Your task to perform on an android device: turn on showing notifications on the lock screen Image 0: 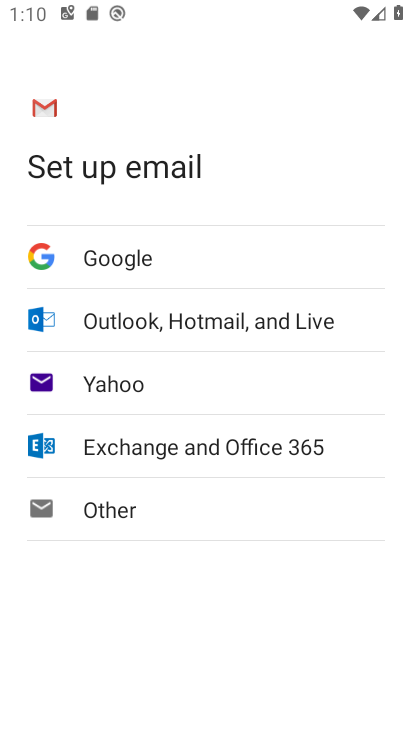
Step 0: press back button
Your task to perform on an android device: turn on showing notifications on the lock screen Image 1: 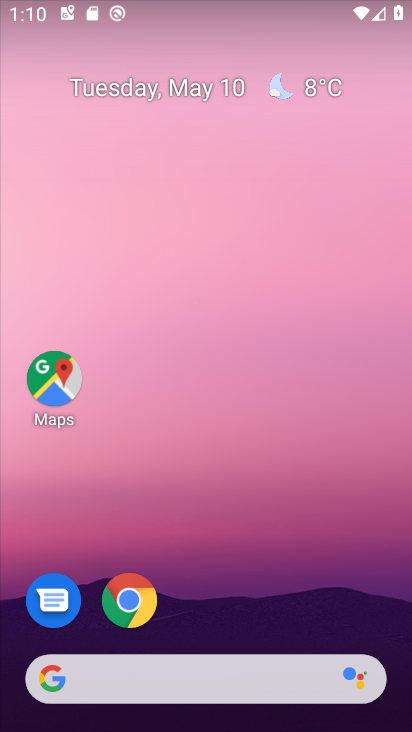
Step 1: drag from (191, 630) to (305, 116)
Your task to perform on an android device: turn on showing notifications on the lock screen Image 2: 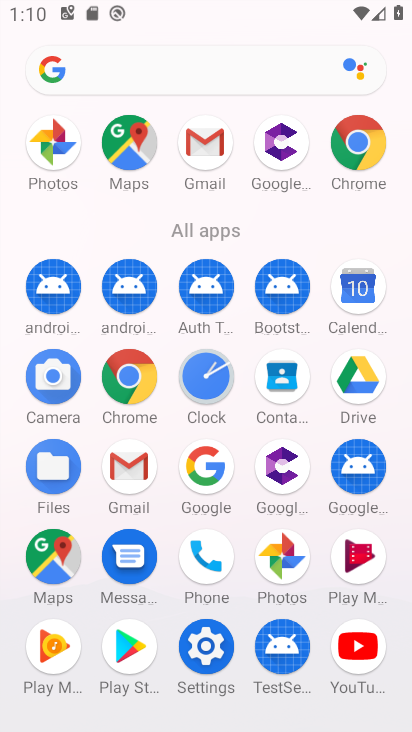
Step 2: drag from (183, 669) to (246, 414)
Your task to perform on an android device: turn on showing notifications on the lock screen Image 3: 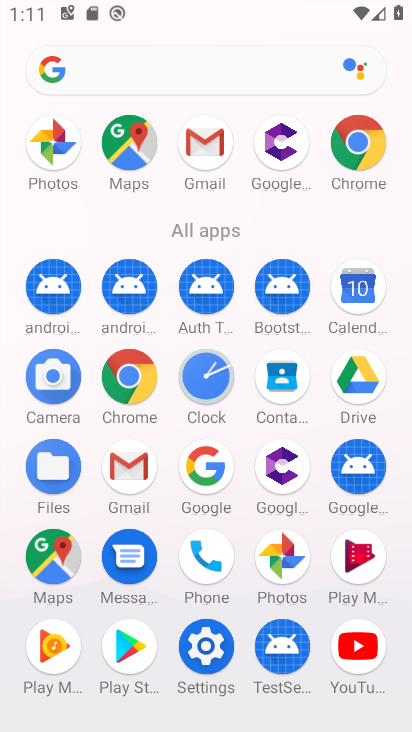
Step 3: click (222, 643)
Your task to perform on an android device: turn on showing notifications on the lock screen Image 4: 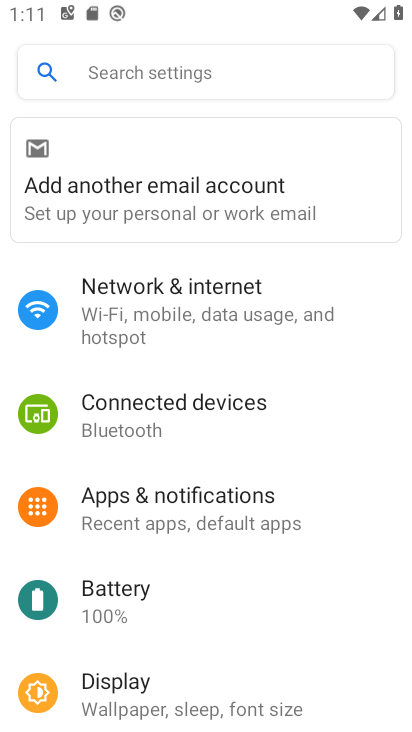
Step 4: click (205, 516)
Your task to perform on an android device: turn on showing notifications on the lock screen Image 5: 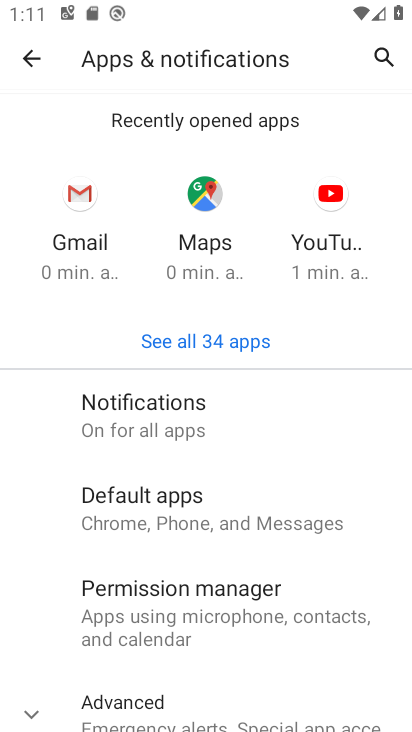
Step 5: click (221, 410)
Your task to perform on an android device: turn on showing notifications on the lock screen Image 6: 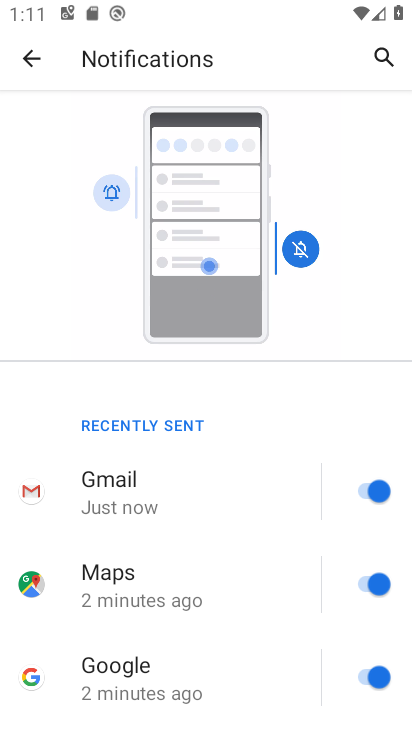
Step 6: drag from (201, 700) to (348, 201)
Your task to perform on an android device: turn on showing notifications on the lock screen Image 7: 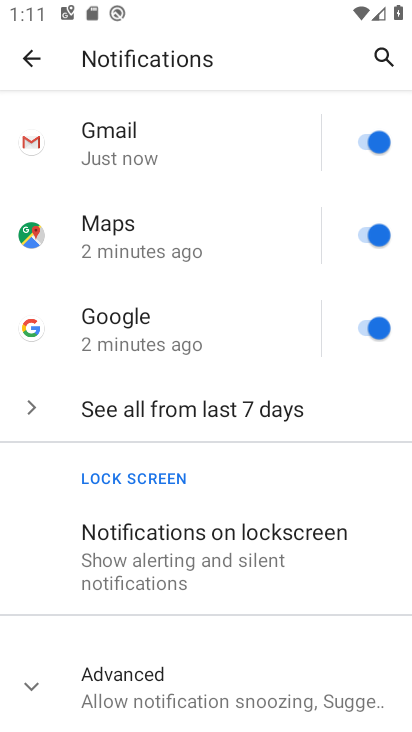
Step 7: drag from (174, 672) to (226, 444)
Your task to perform on an android device: turn on showing notifications on the lock screen Image 8: 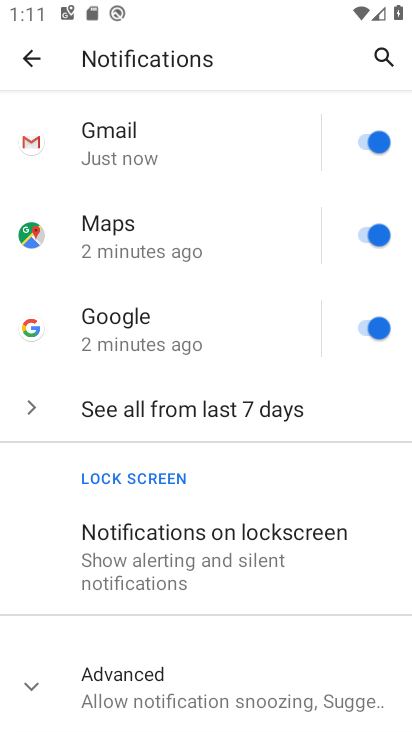
Step 8: click (219, 560)
Your task to perform on an android device: turn on showing notifications on the lock screen Image 9: 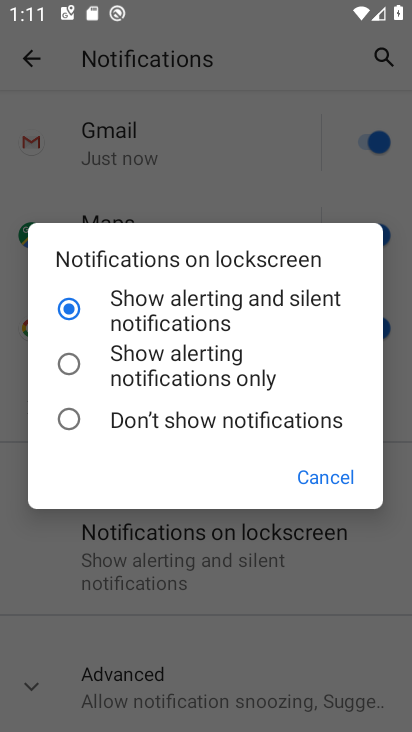
Step 9: task complete